Your task to perform on an android device: Open Chrome and go to settings Image 0: 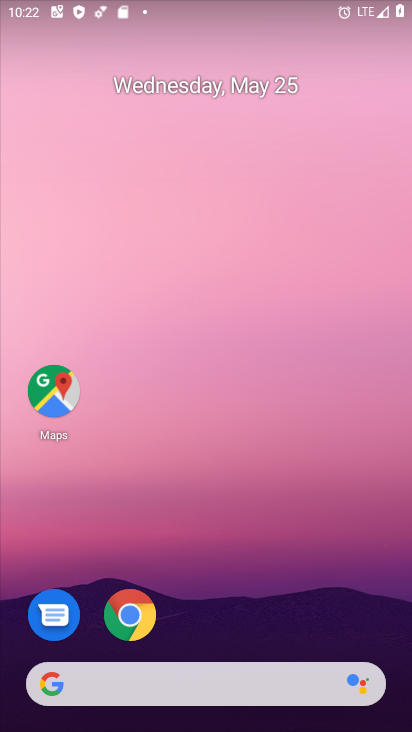
Step 0: click (132, 608)
Your task to perform on an android device: Open Chrome and go to settings Image 1: 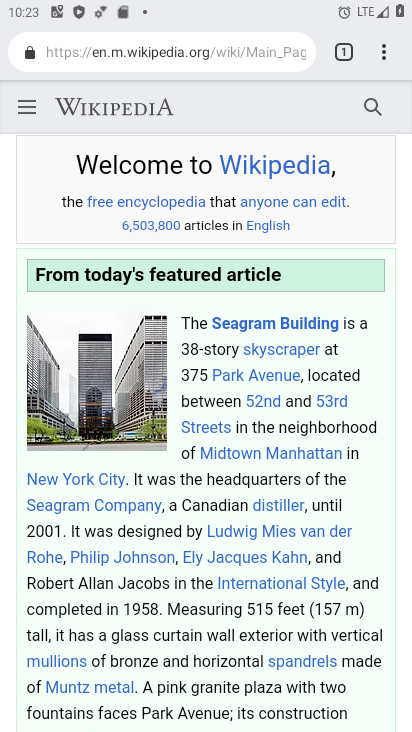
Step 1: click (381, 51)
Your task to perform on an android device: Open Chrome and go to settings Image 2: 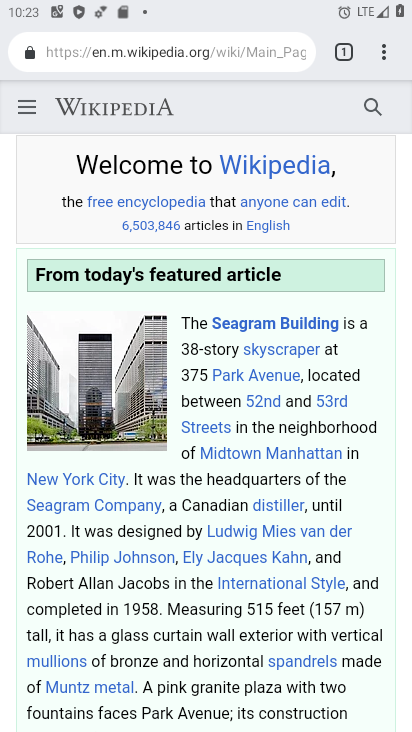
Step 2: click (381, 53)
Your task to perform on an android device: Open Chrome and go to settings Image 3: 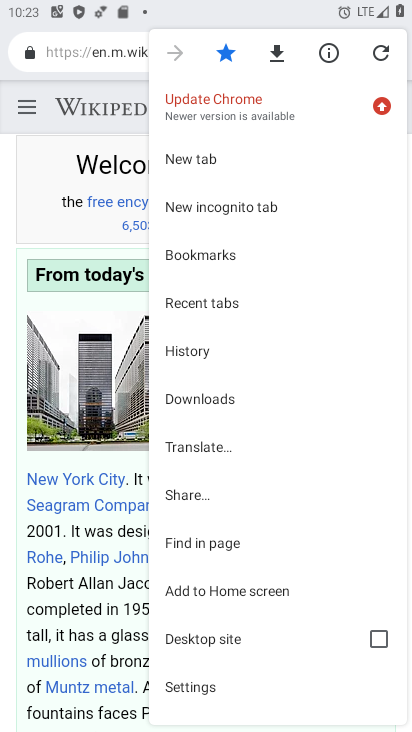
Step 3: click (209, 680)
Your task to perform on an android device: Open Chrome and go to settings Image 4: 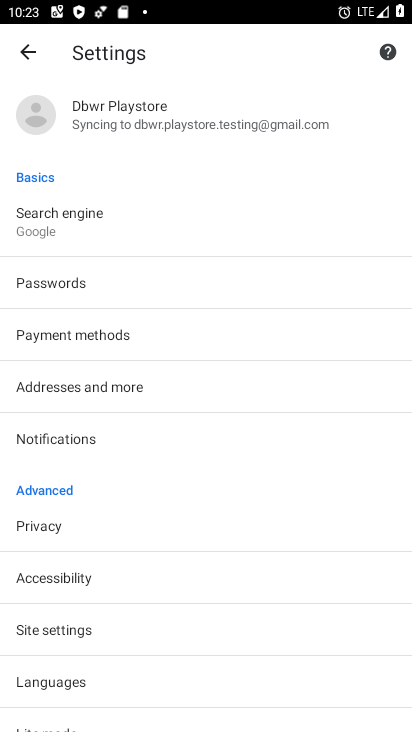
Step 4: task complete